Your task to perform on an android device: toggle pop-ups in chrome Image 0: 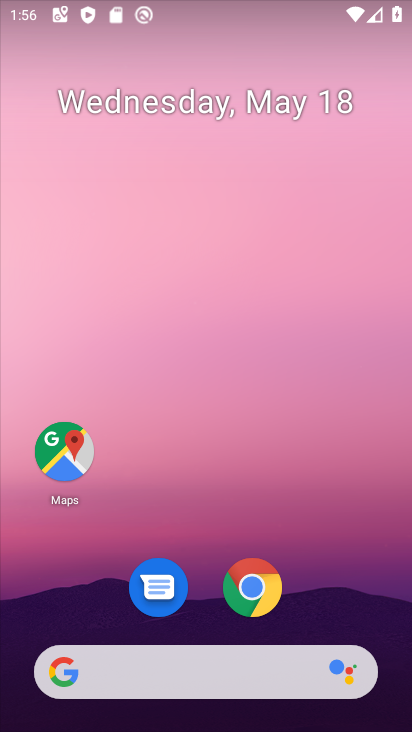
Step 0: click (255, 582)
Your task to perform on an android device: toggle pop-ups in chrome Image 1: 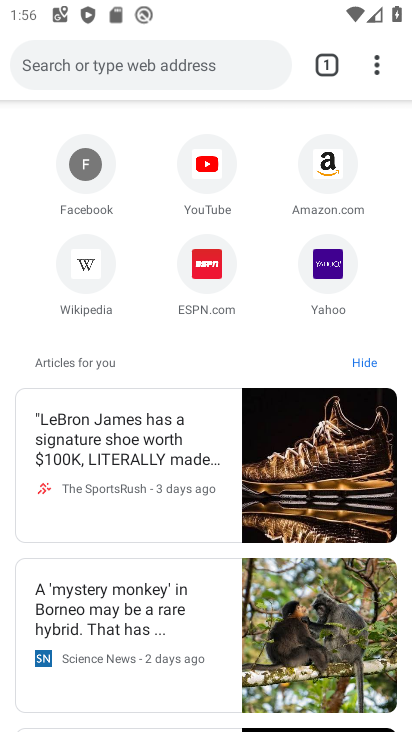
Step 1: click (380, 66)
Your task to perform on an android device: toggle pop-ups in chrome Image 2: 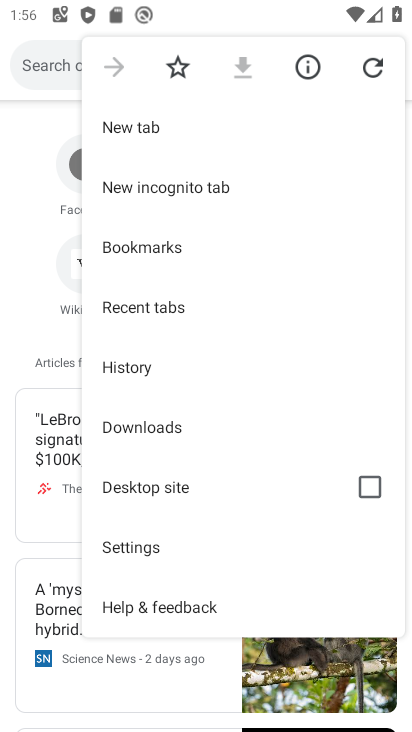
Step 2: click (125, 552)
Your task to perform on an android device: toggle pop-ups in chrome Image 3: 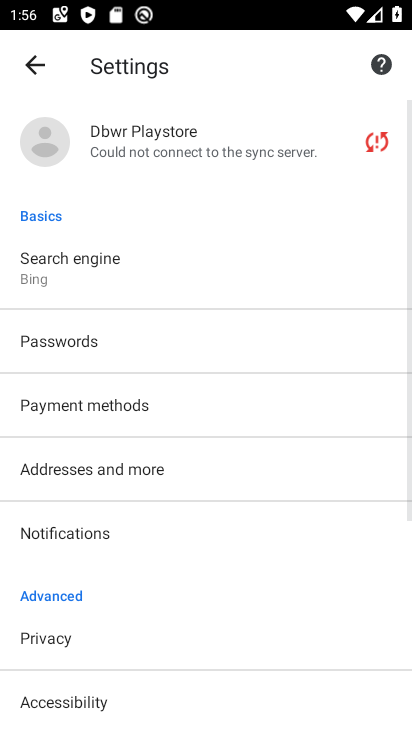
Step 3: drag from (174, 551) to (168, 236)
Your task to perform on an android device: toggle pop-ups in chrome Image 4: 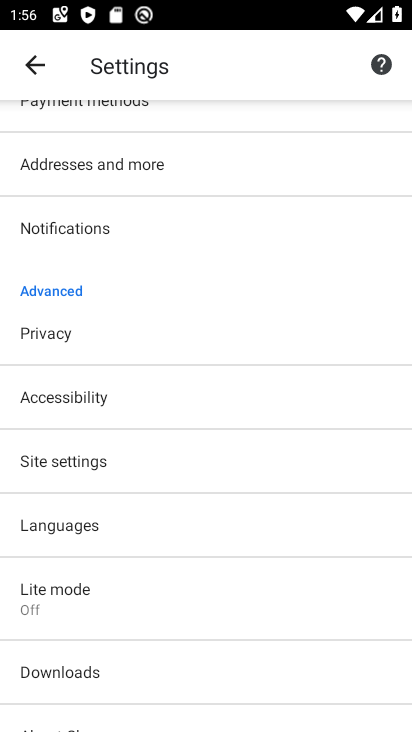
Step 4: click (100, 472)
Your task to perform on an android device: toggle pop-ups in chrome Image 5: 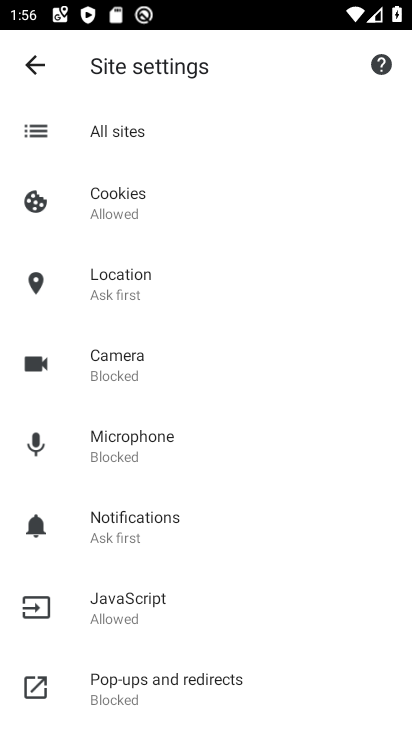
Step 5: click (116, 692)
Your task to perform on an android device: toggle pop-ups in chrome Image 6: 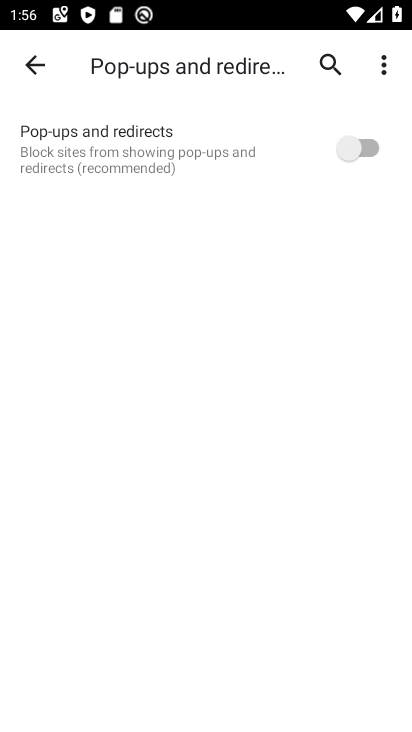
Step 6: click (344, 150)
Your task to perform on an android device: toggle pop-ups in chrome Image 7: 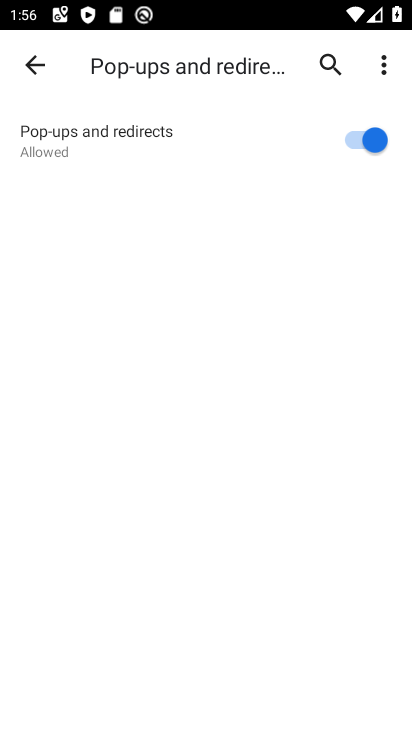
Step 7: task complete